Your task to perform on an android device: Open a new private tab in Chrome Image 0: 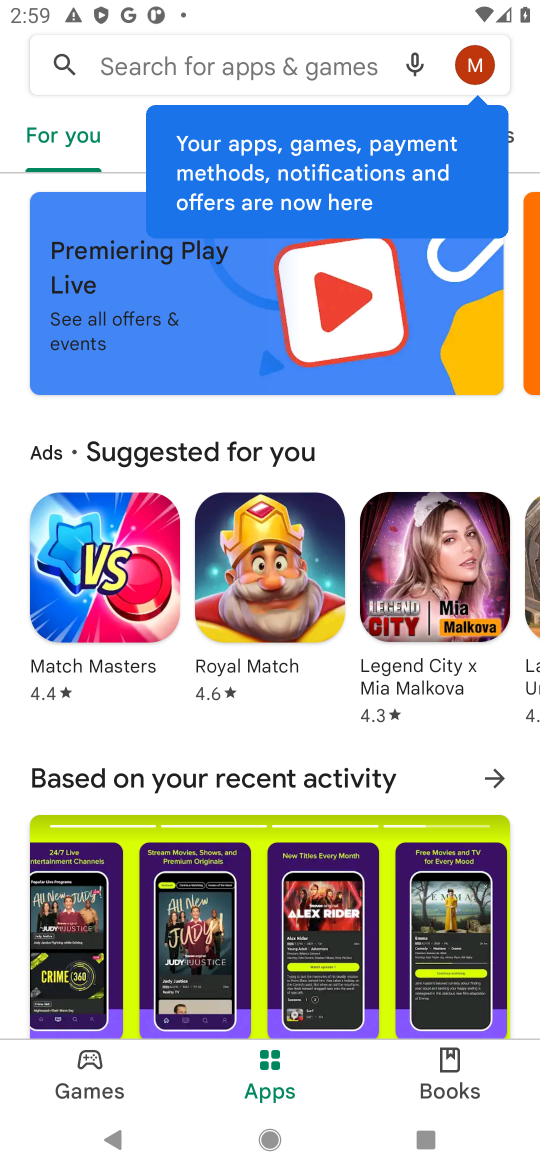
Step 0: press home button
Your task to perform on an android device: Open a new private tab in Chrome Image 1: 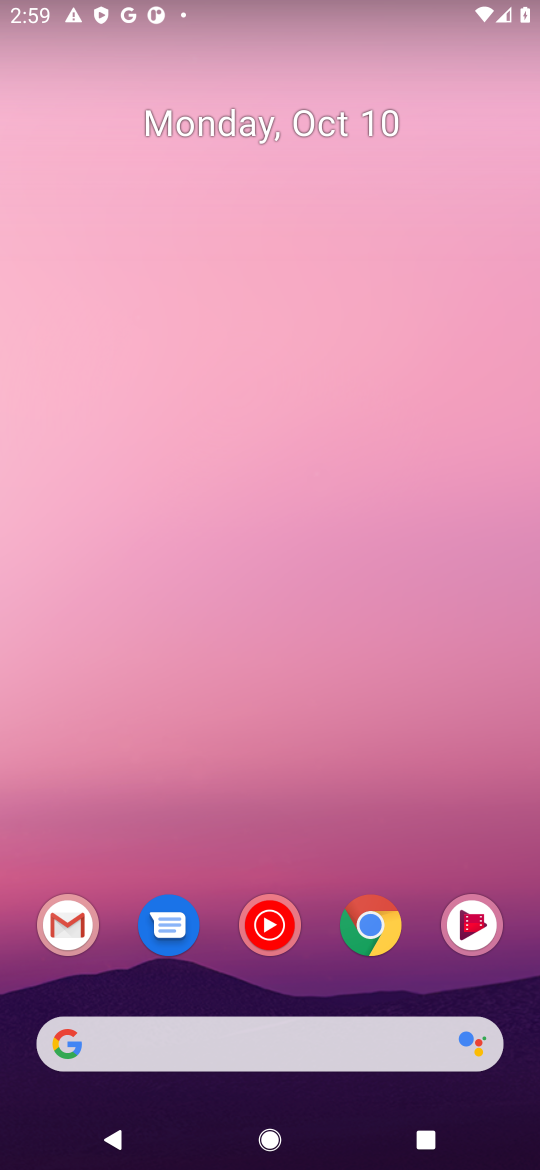
Step 1: click (374, 940)
Your task to perform on an android device: Open a new private tab in Chrome Image 2: 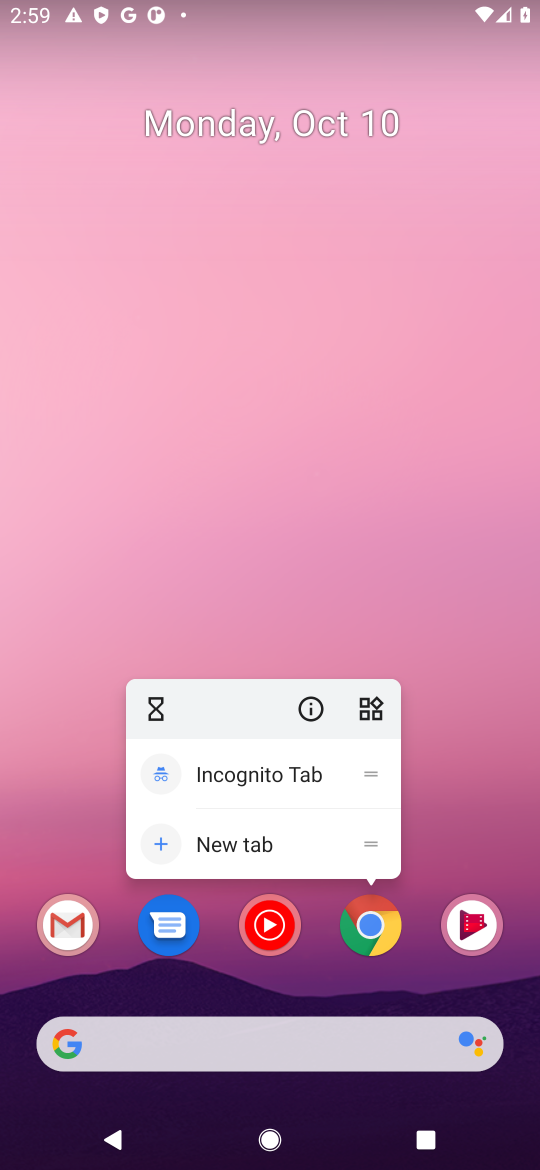
Step 2: click (386, 932)
Your task to perform on an android device: Open a new private tab in Chrome Image 3: 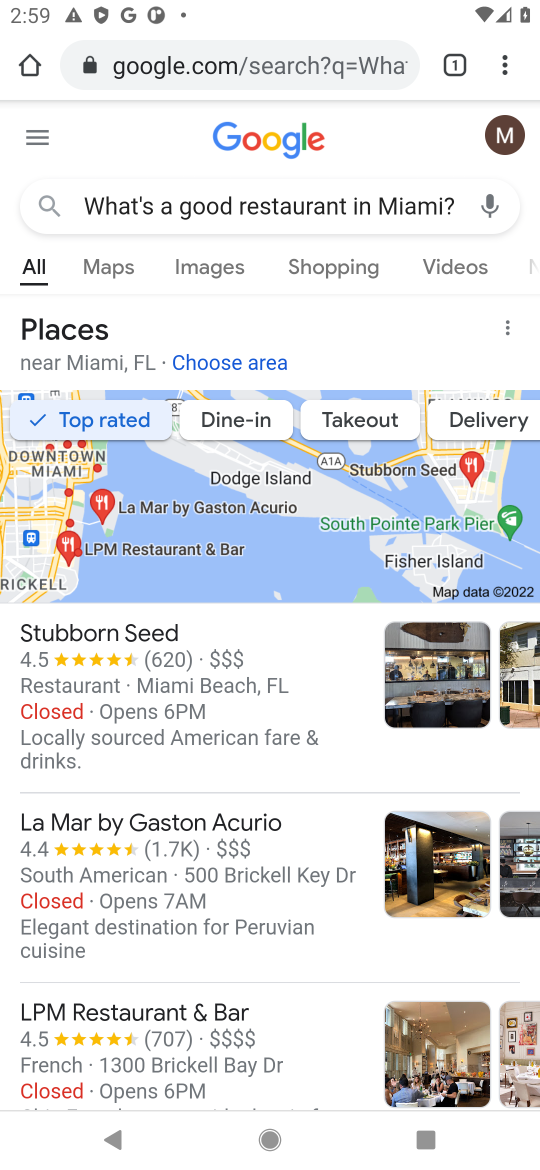
Step 3: task complete